Your task to perform on an android device: turn off airplane mode Image 0: 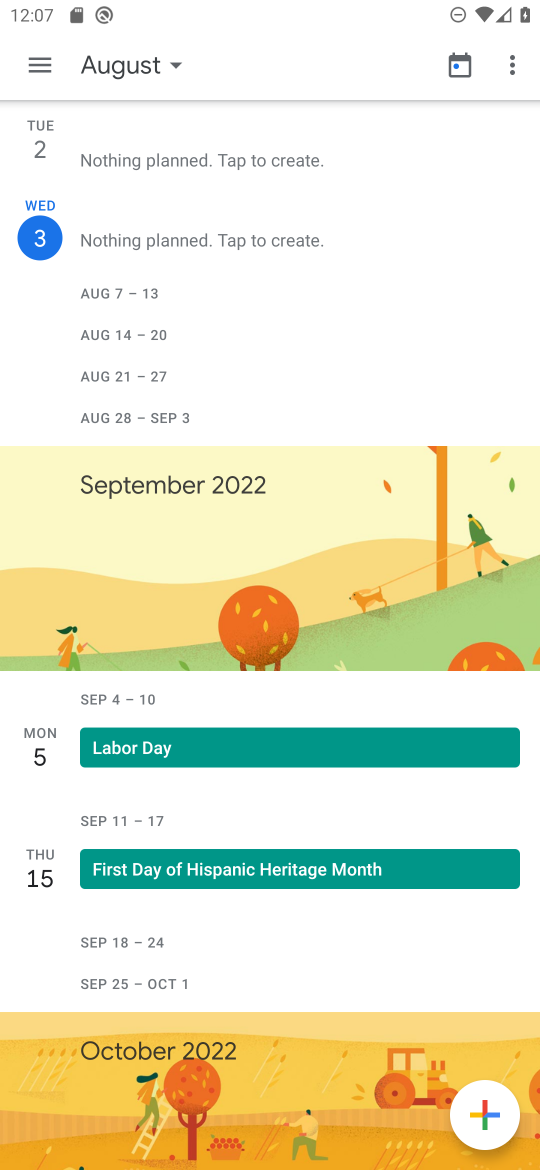
Step 0: press home button
Your task to perform on an android device: turn off airplane mode Image 1: 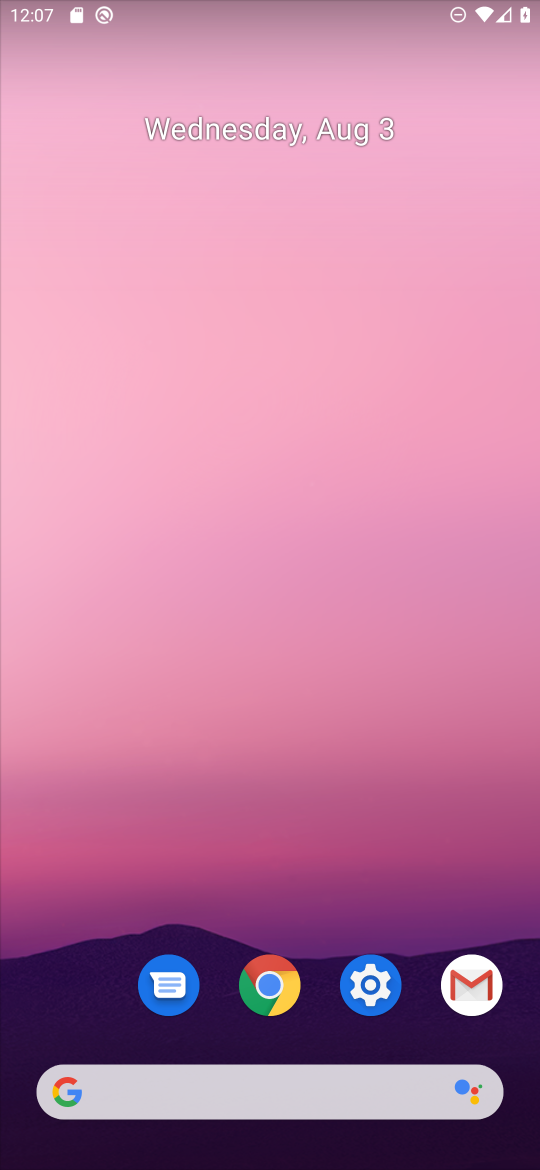
Step 1: click (373, 967)
Your task to perform on an android device: turn off airplane mode Image 2: 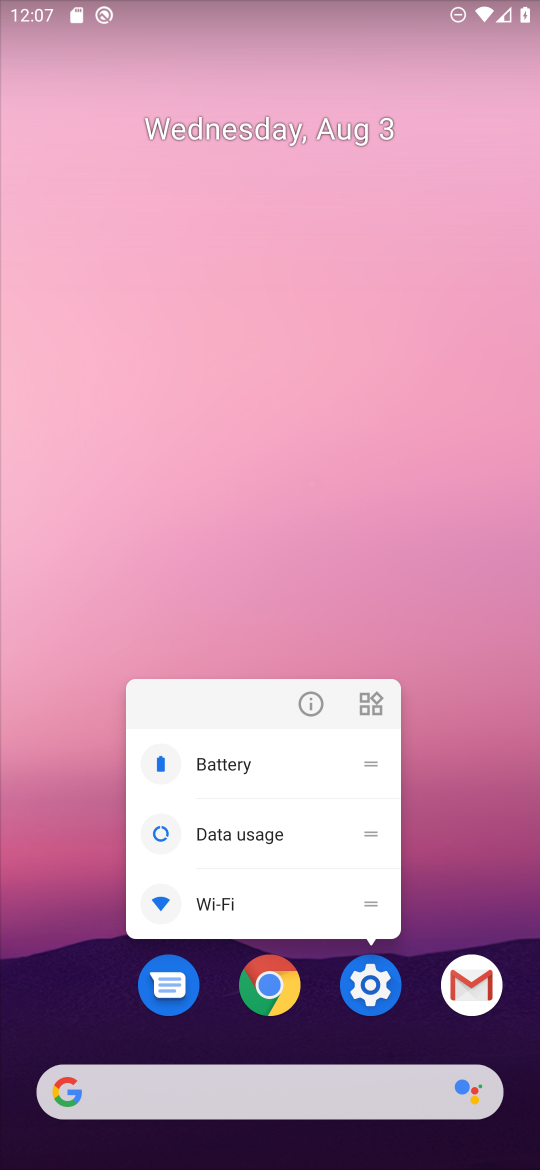
Step 2: click (367, 979)
Your task to perform on an android device: turn off airplane mode Image 3: 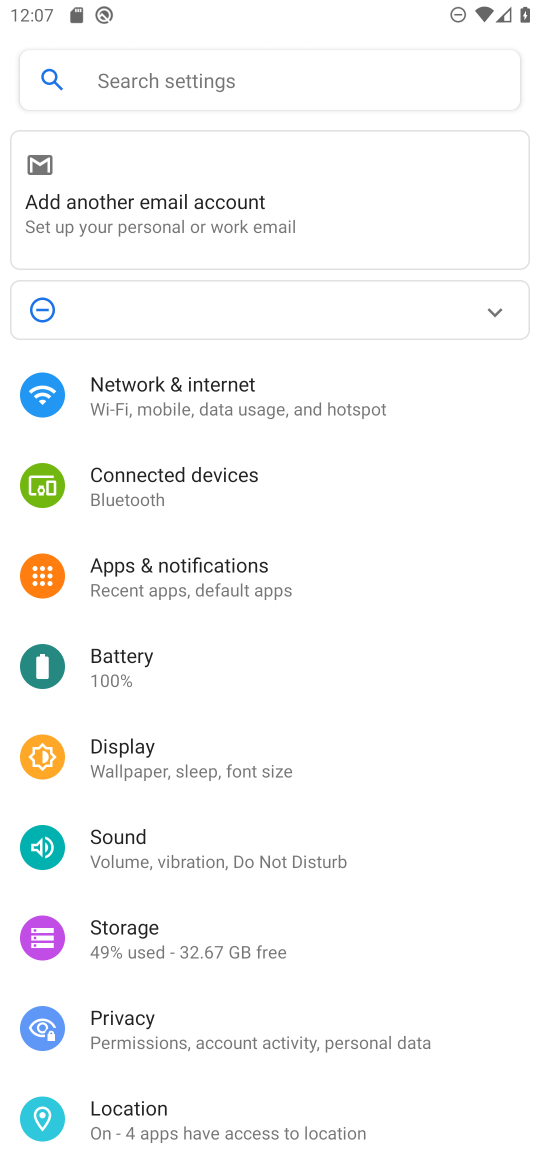
Step 3: click (209, 420)
Your task to perform on an android device: turn off airplane mode Image 4: 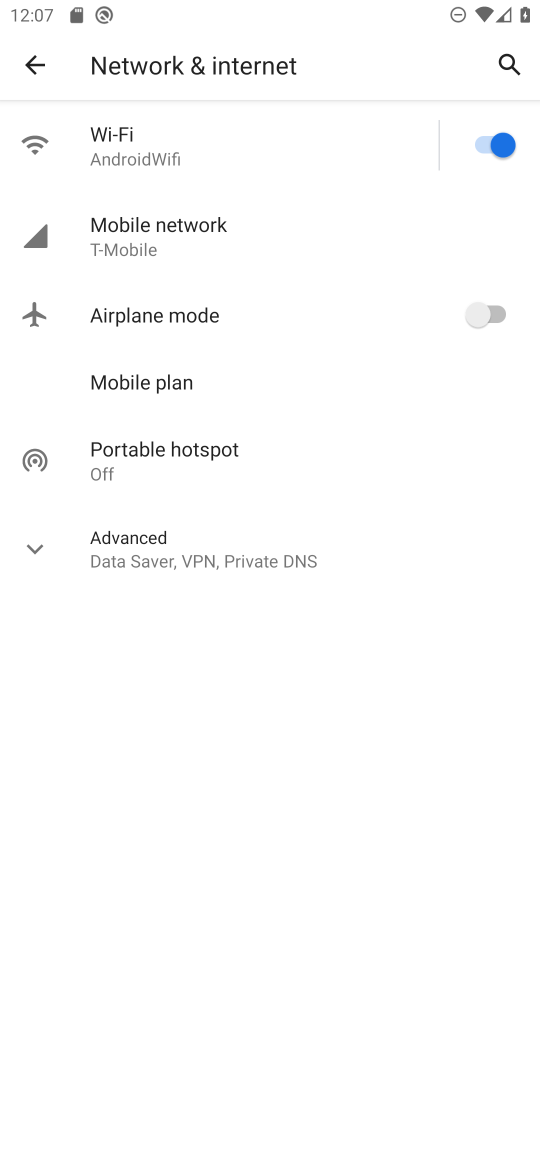
Step 4: click (220, 321)
Your task to perform on an android device: turn off airplane mode Image 5: 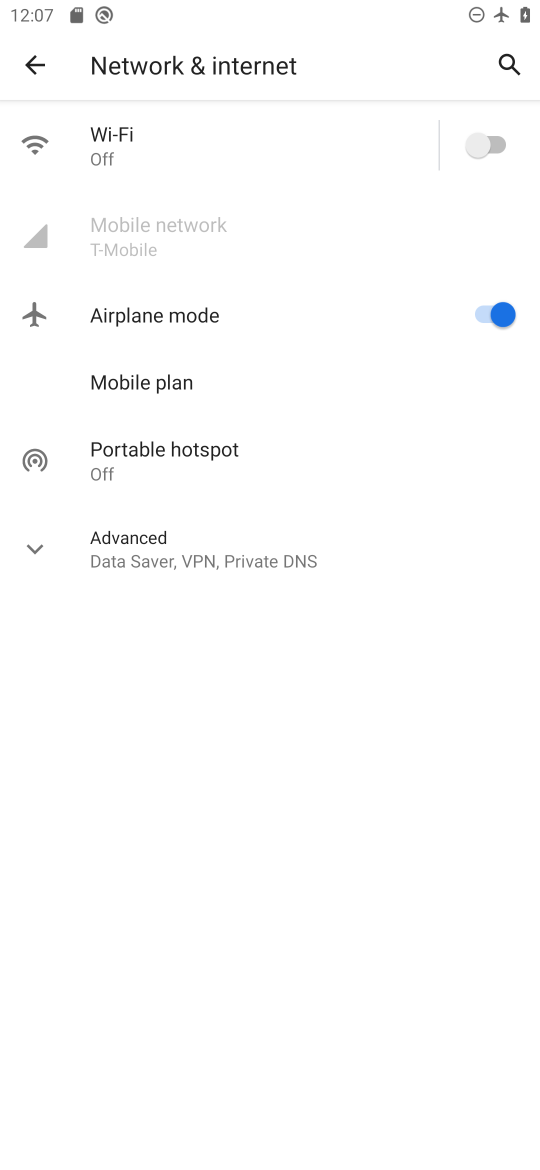
Step 5: click (220, 321)
Your task to perform on an android device: turn off airplane mode Image 6: 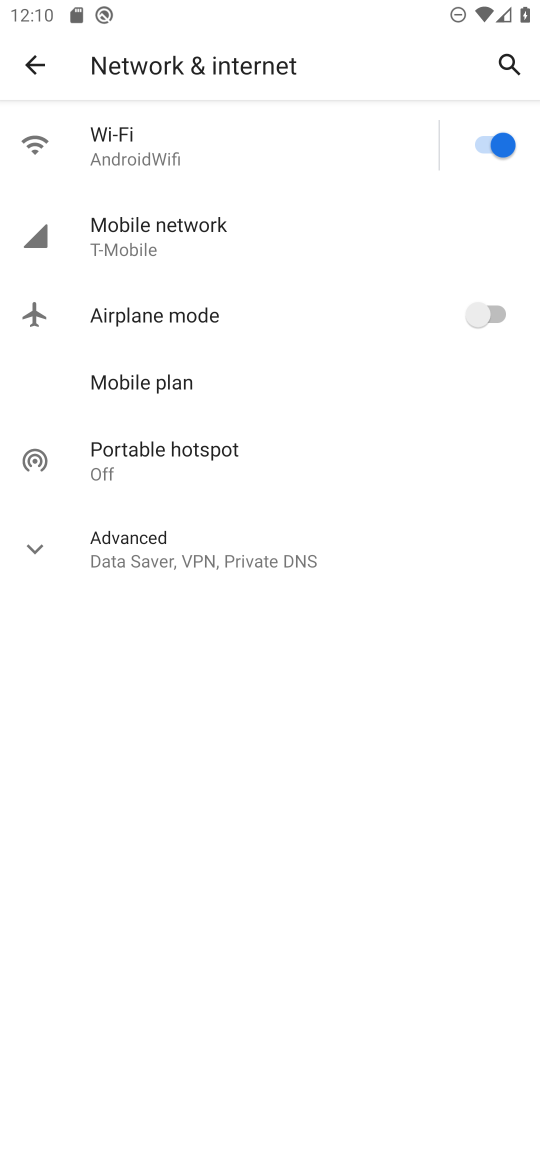
Step 6: click (469, 144)
Your task to perform on an android device: turn off airplane mode Image 7: 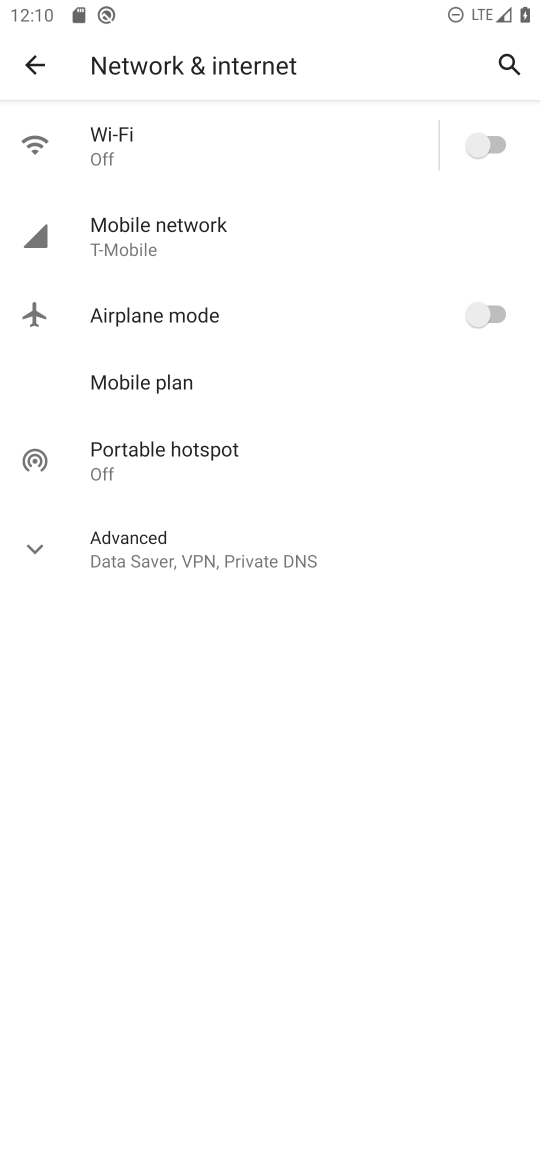
Step 7: task complete